Your task to perform on an android device: check storage Image 0: 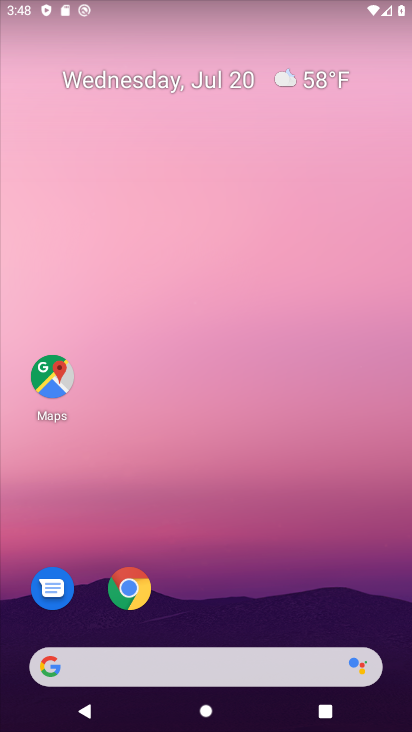
Step 0: drag from (252, 647) to (236, 141)
Your task to perform on an android device: check storage Image 1: 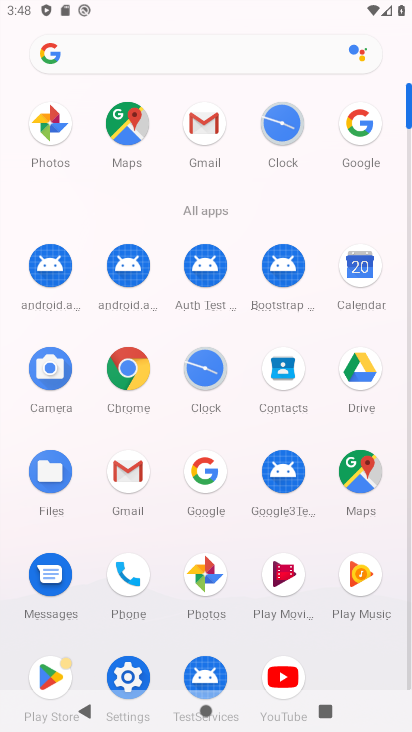
Step 1: click (127, 674)
Your task to perform on an android device: check storage Image 2: 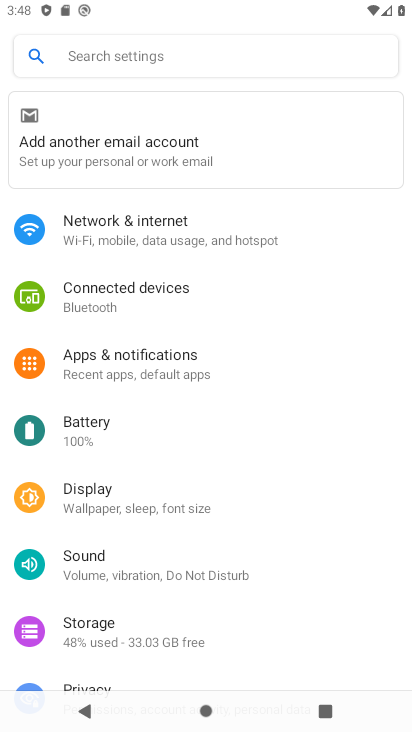
Step 2: click (86, 634)
Your task to perform on an android device: check storage Image 3: 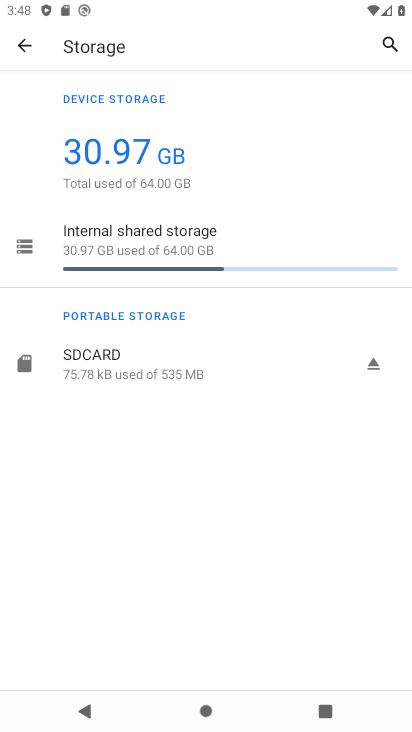
Step 3: task complete